Your task to perform on an android device: turn off picture-in-picture Image 0: 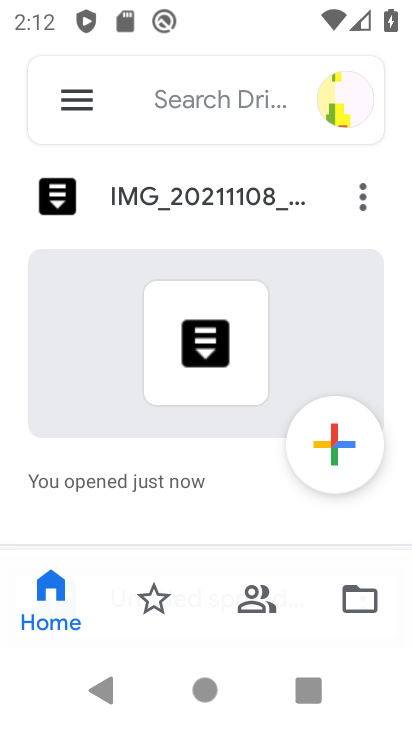
Step 0: press home button
Your task to perform on an android device: turn off picture-in-picture Image 1: 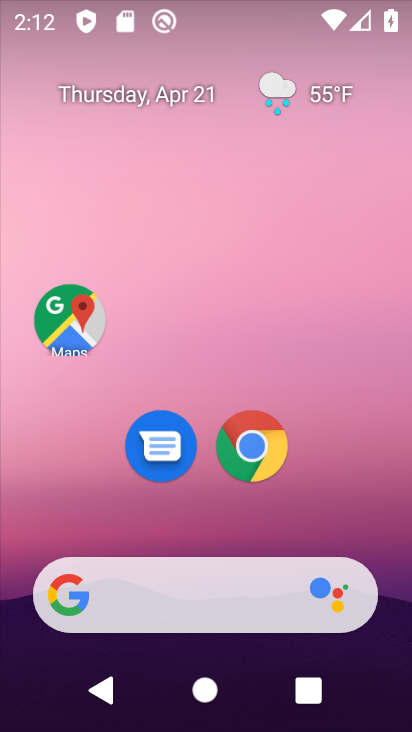
Step 1: drag from (222, 716) to (213, 56)
Your task to perform on an android device: turn off picture-in-picture Image 2: 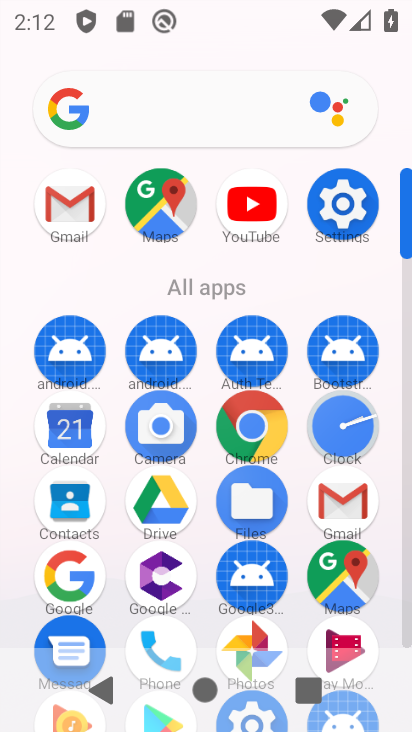
Step 2: click (346, 202)
Your task to perform on an android device: turn off picture-in-picture Image 3: 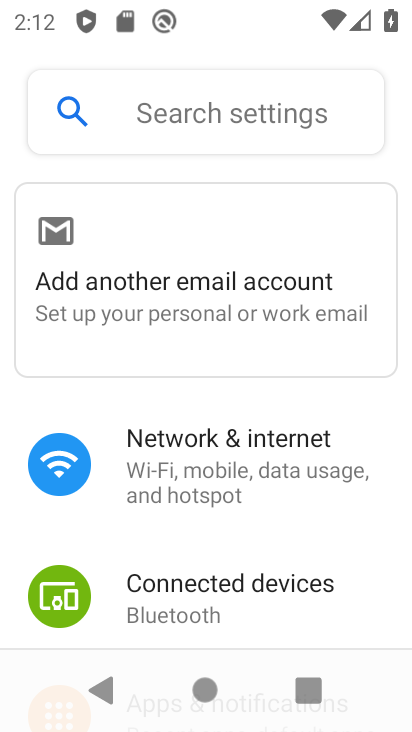
Step 3: drag from (235, 630) to (219, 158)
Your task to perform on an android device: turn off picture-in-picture Image 4: 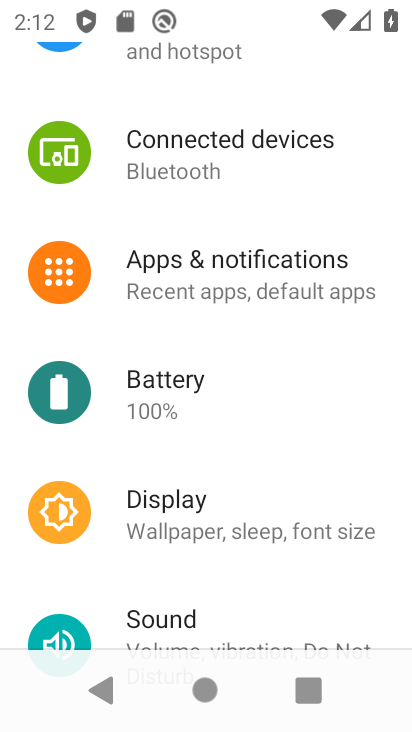
Step 4: click (188, 277)
Your task to perform on an android device: turn off picture-in-picture Image 5: 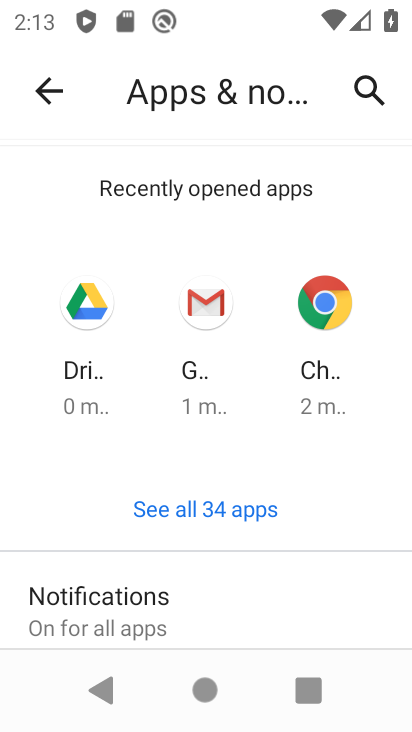
Step 5: drag from (211, 628) to (212, 251)
Your task to perform on an android device: turn off picture-in-picture Image 6: 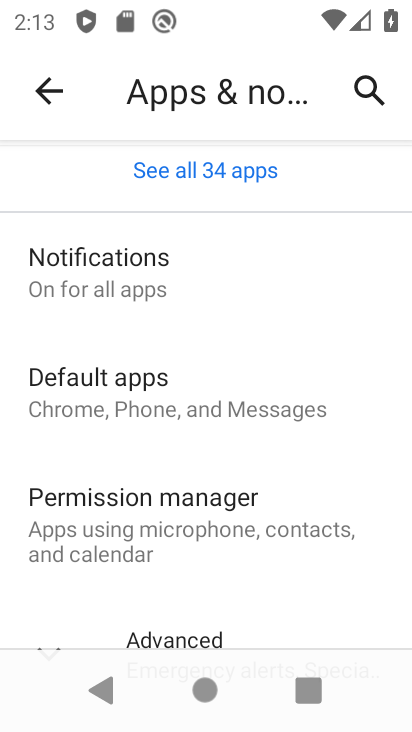
Step 6: drag from (226, 614) to (215, 298)
Your task to perform on an android device: turn off picture-in-picture Image 7: 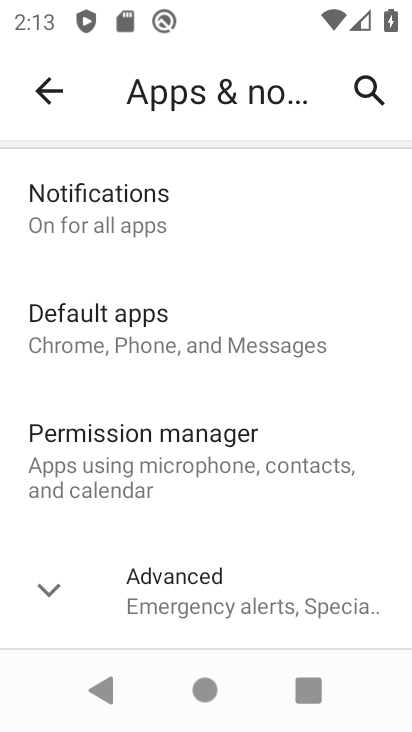
Step 7: click (194, 593)
Your task to perform on an android device: turn off picture-in-picture Image 8: 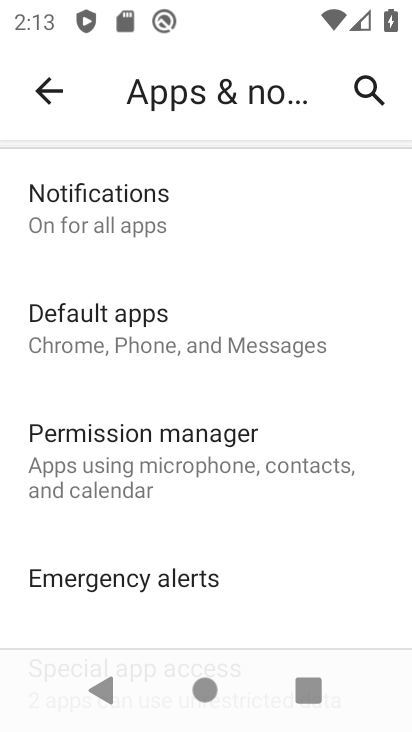
Step 8: drag from (199, 624) to (212, 204)
Your task to perform on an android device: turn off picture-in-picture Image 9: 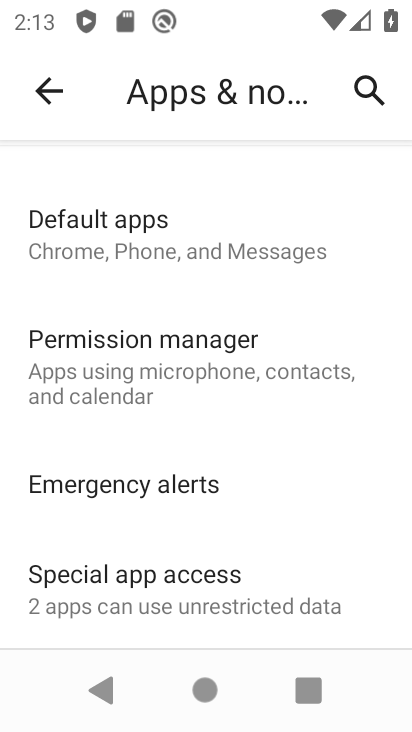
Step 9: click (202, 565)
Your task to perform on an android device: turn off picture-in-picture Image 10: 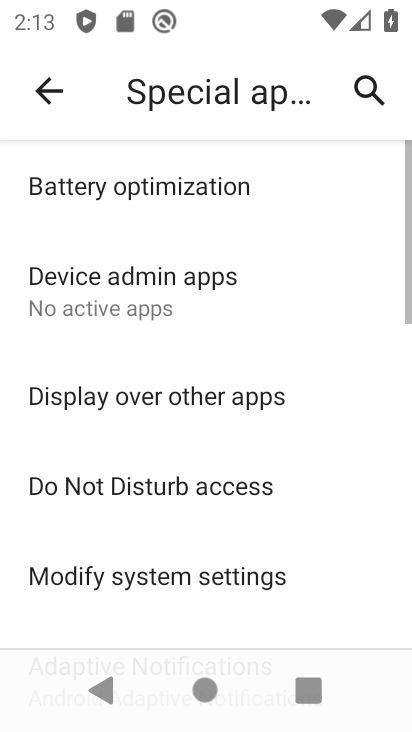
Step 10: drag from (232, 608) to (229, 253)
Your task to perform on an android device: turn off picture-in-picture Image 11: 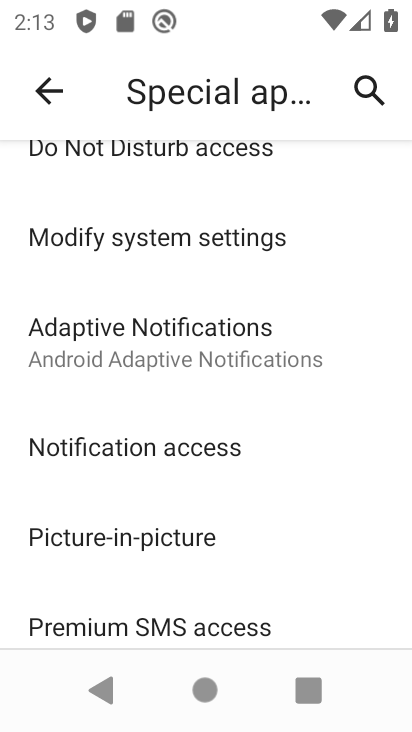
Step 11: click (171, 531)
Your task to perform on an android device: turn off picture-in-picture Image 12: 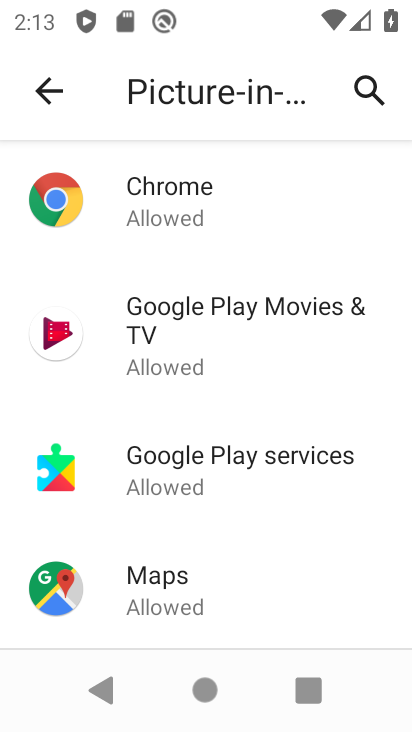
Step 12: drag from (200, 627) to (215, 188)
Your task to perform on an android device: turn off picture-in-picture Image 13: 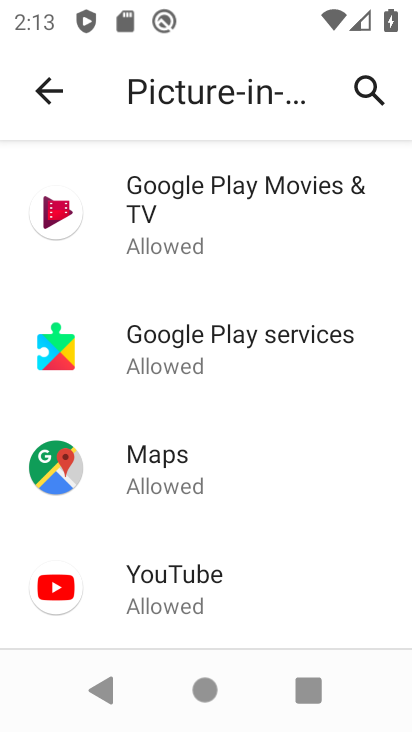
Step 13: click (186, 572)
Your task to perform on an android device: turn off picture-in-picture Image 14: 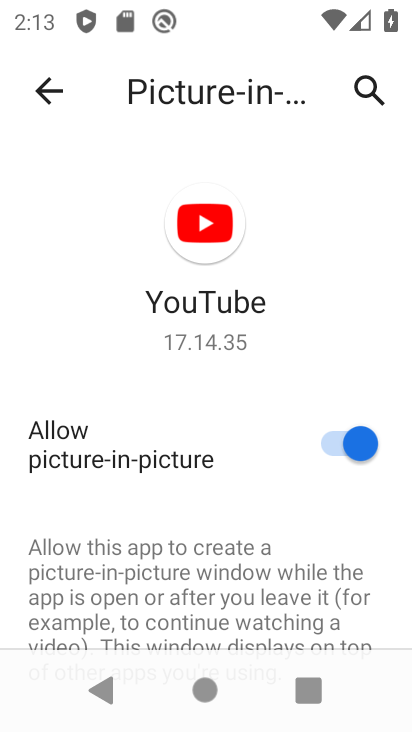
Step 14: click (335, 443)
Your task to perform on an android device: turn off picture-in-picture Image 15: 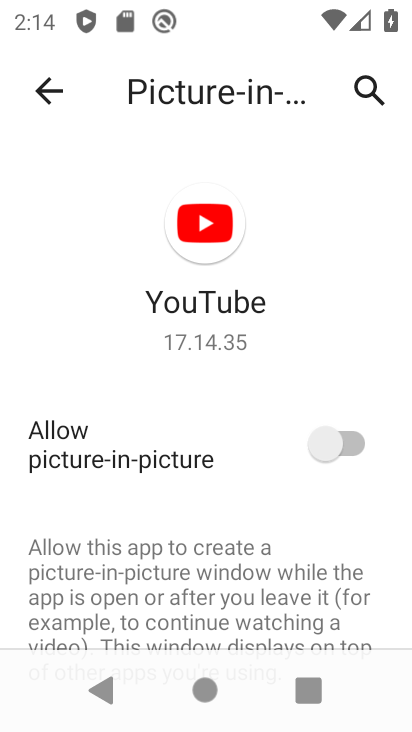
Step 15: task complete